Your task to perform on an android device: set default search engine in the chrome app Image 0: 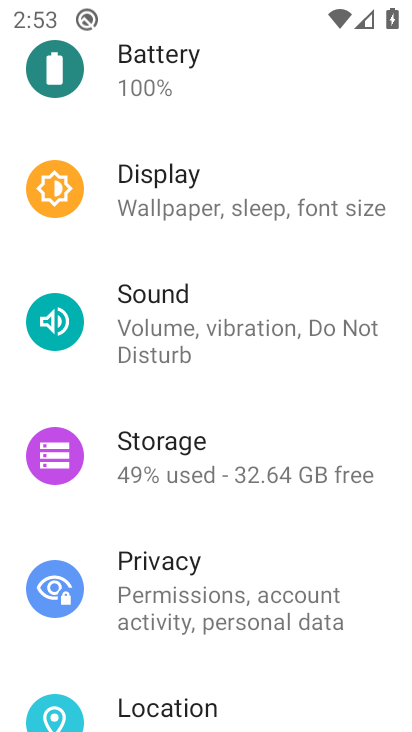
Step 0: press home button
Your task to perform on an android device: set default search engine in the chrome app Image 1: 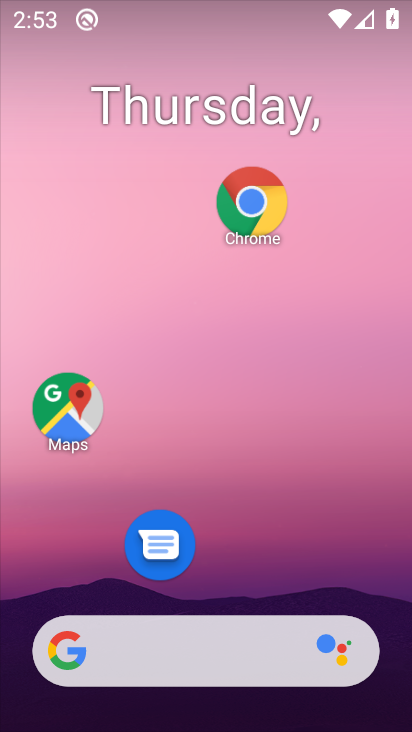
Step 1: click (263, 199)
Your task to perform on an android device: set default search engine in the chrome app Image 2: 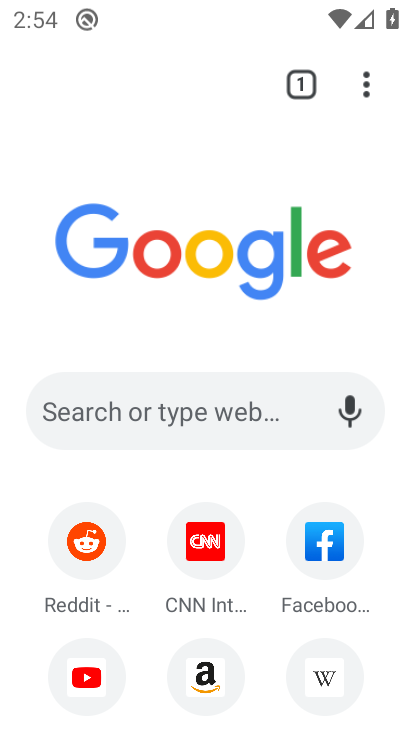
Step 2: click (364, 81)
Your task to perform on an android device: set default search engine in the chrome app Image 3: 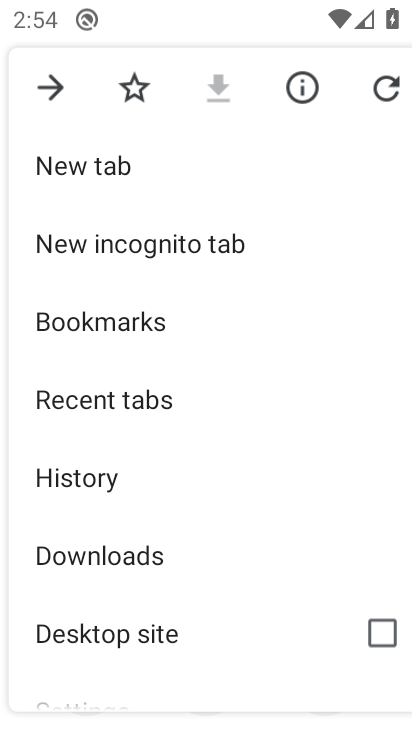
Step 3: click (131, 649)
Your task to perform on an android device: set default search engine in the chrome app Image 4: 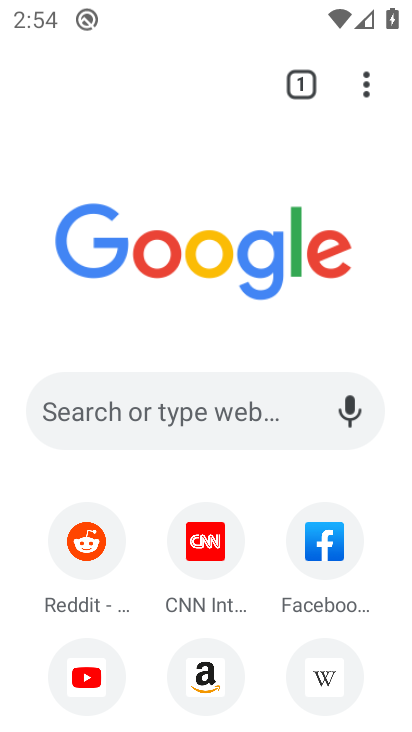
Step 4: drag from (131, 649) to (192, 325)
Your task to perform on an android device: set default search engine in the chrome app Image 5: 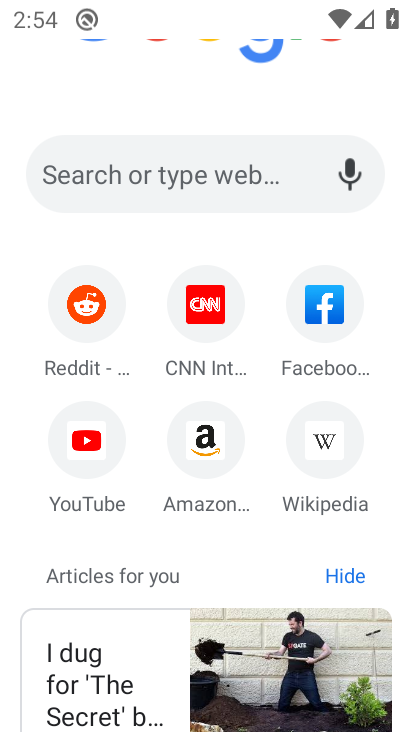
Step 5: drag from (277, 119) to (201, 531)
Your task to perform on an android device: set default search engine in the chrome app Image 6: 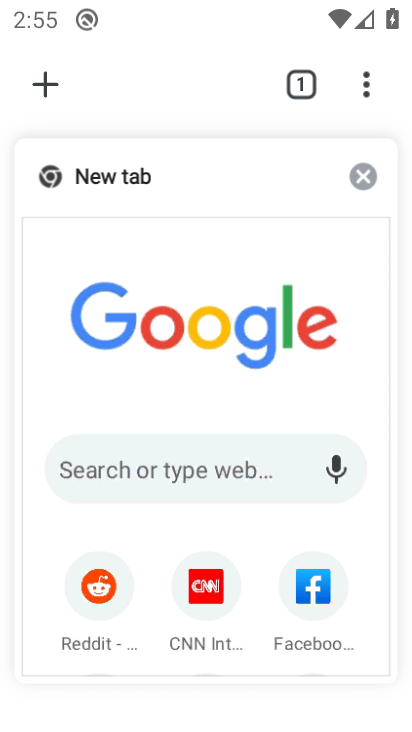
Step 6: click (367, 82)
Your task to perform on an android device: set default search engine in the chrome app Image 7: 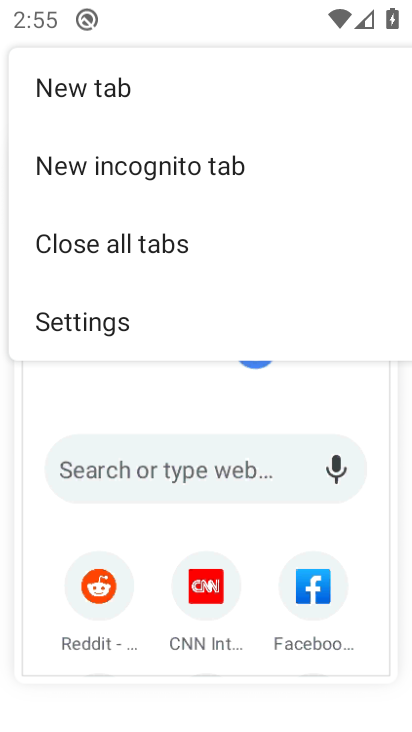
Step 7: click (103, 318)
Your task to perform on an android device: set default search engine in the chrome app Image 8: 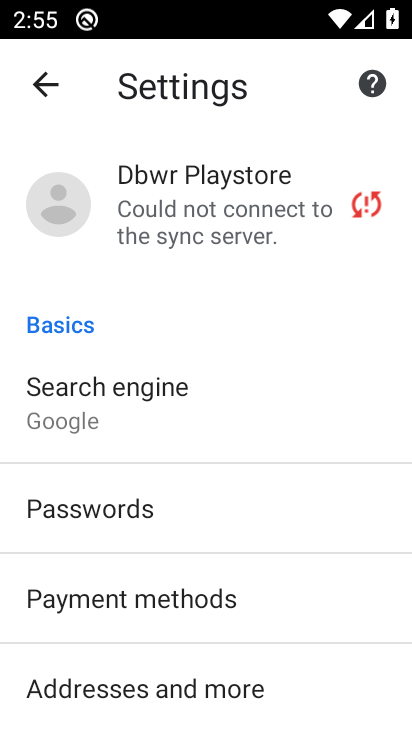
Step 8: click (106, 397)
Your task to perform on an android device: set default search engine in the chrome app Image 9: 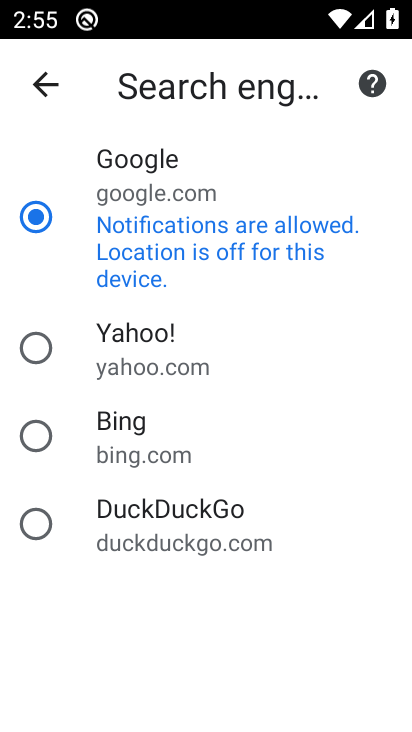
Step 9: task complete